Your task to perform on an android device: change the clock display to analog Image 0: 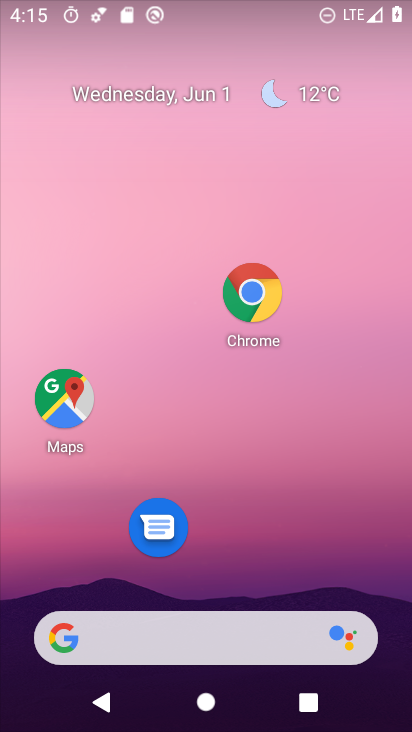
Step 0: drag from (296, 290) to (323, 102)
Your task to perform on an android device: change the clock display to analog Image 1: 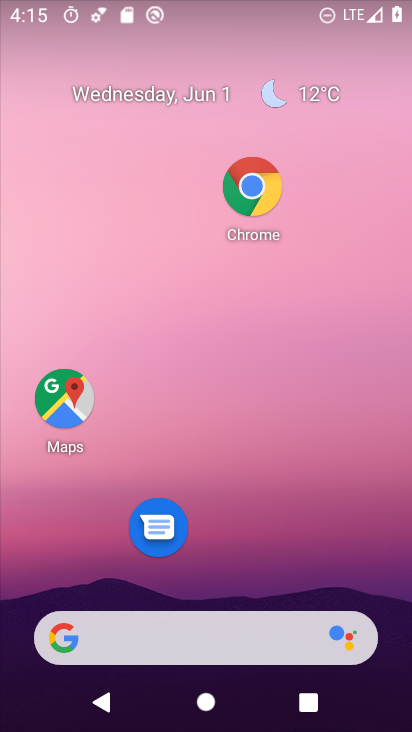
Step 1: click (305, 432)
Your task to perform on an android device: change the clock display to analog Image 2: 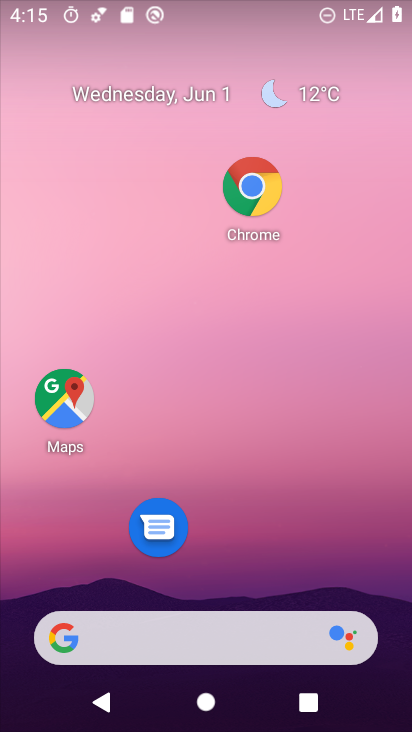
Step 2: drag from (229, 594) to (277, 0)
Your task to perform on an android device: change the clock display to analog Image 3: 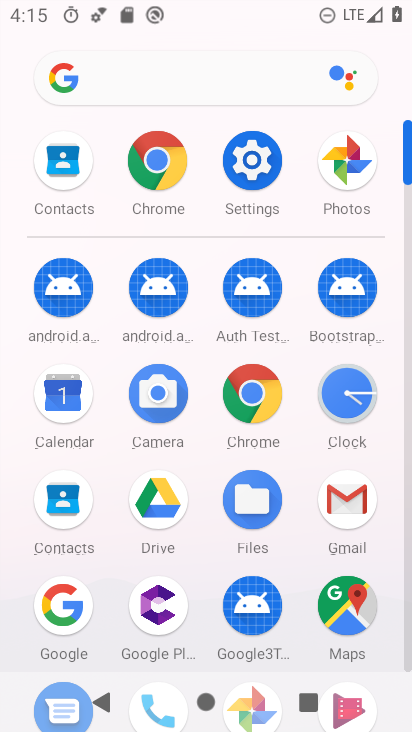
Step 3: click (354, 410)
Your task to perform on an android device: change the clock display to analog Image 4: 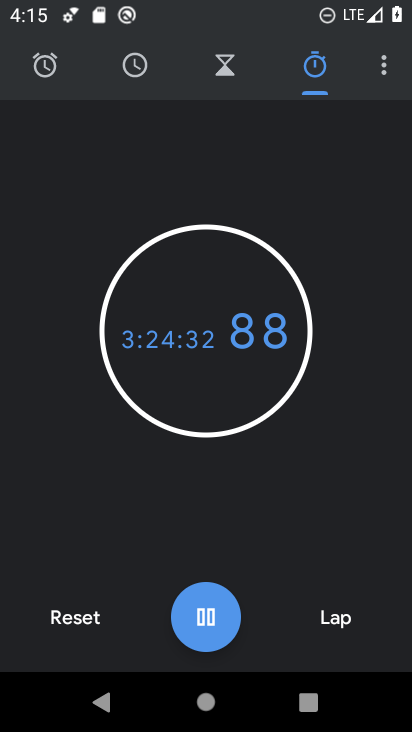
Step 4: click (390, 77)
Your task to perform on an android device: change the clock display to analog Image 5: 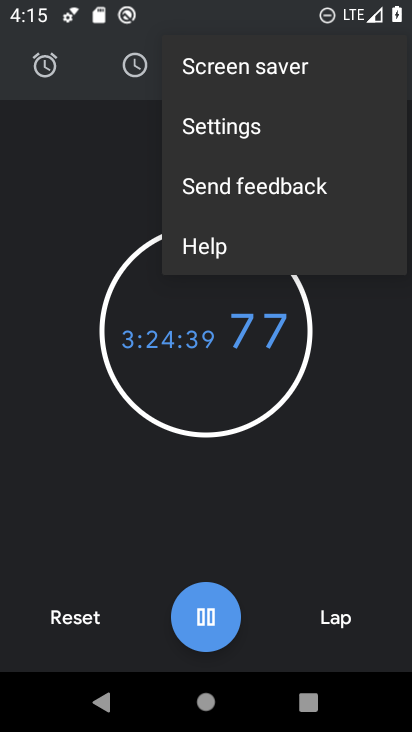
Step 5: click (238, 132)
Your task to perform on an android device: change the clock display to analog Image 6: 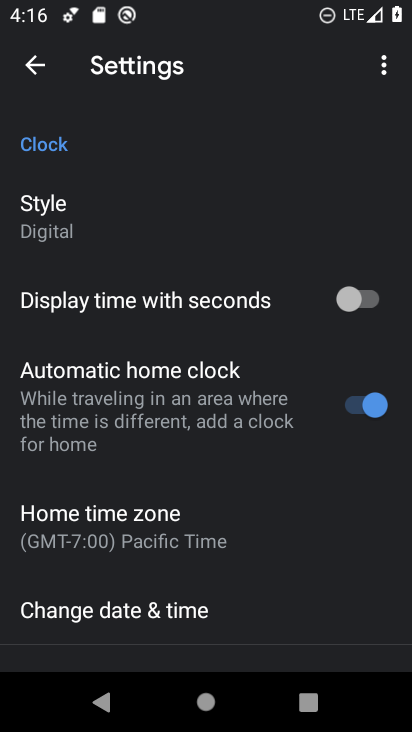
Step 6: click (114, 224)
Your task to perform on an android device: change the clock display to analog Image 7: 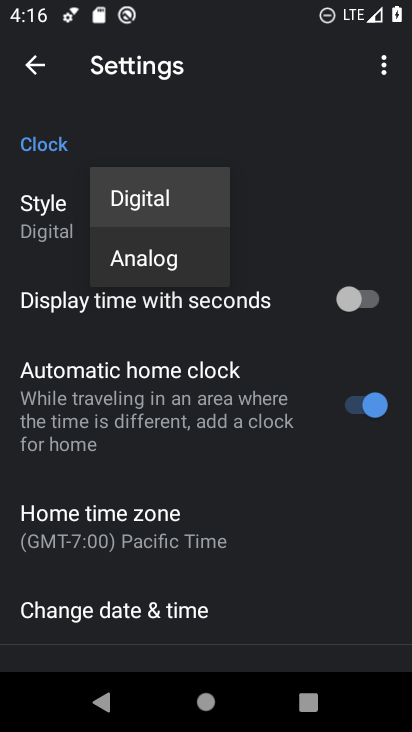
Step 7: click (178, 275)
Your task to perform on an android device: change the clock display to analog Image 8: 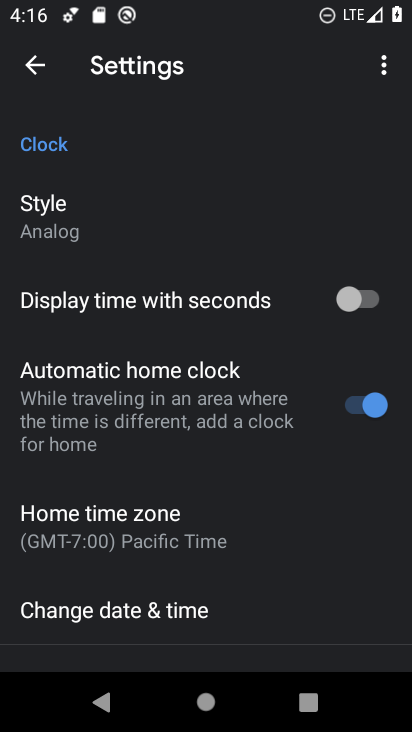
Step 8: task complete